Your task to perform on an android device: Open Maps and search for coffee Image 0: 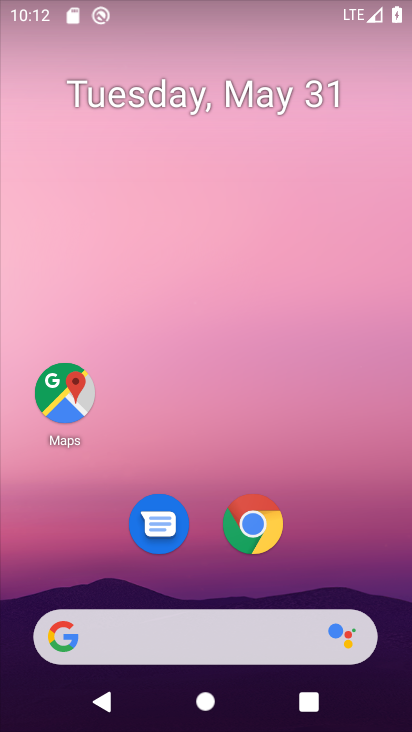
Step 0: click (71, 406)
Your task to perform on an android device: Open Maps and search for coffee Image 1: 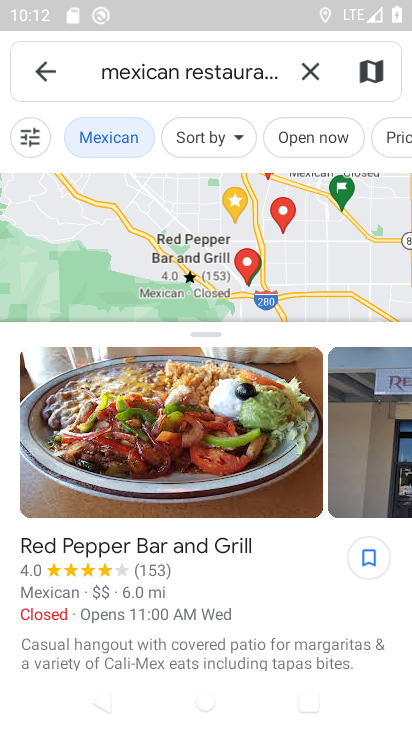
Step 1: click (309, 74)
Your task to perform on an android device: Open Maps and search for coffee Image 2: 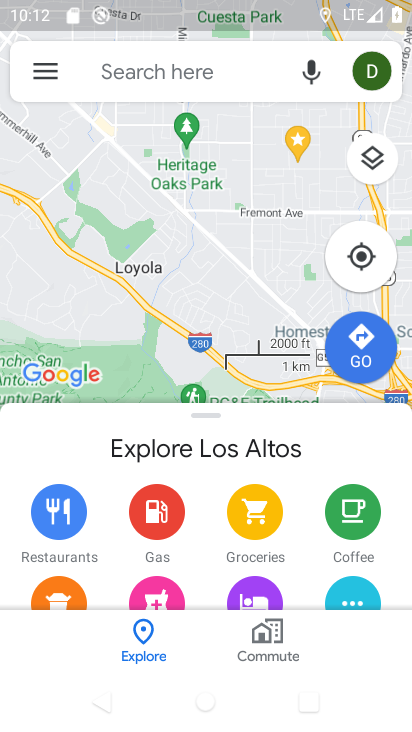
Step 2: click (230, 74)
Your task to perform on an android device: Open Maps and search for coffee Image 3: 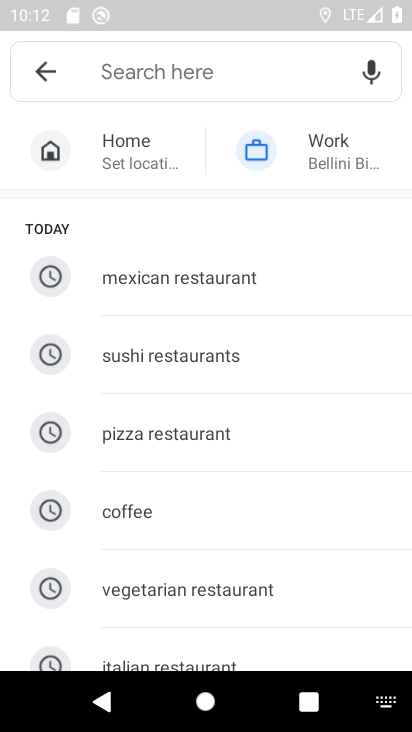
Step 3: click (149, 502)
Your task to perform on an android device: Open Maps and search for coffee Image 4: 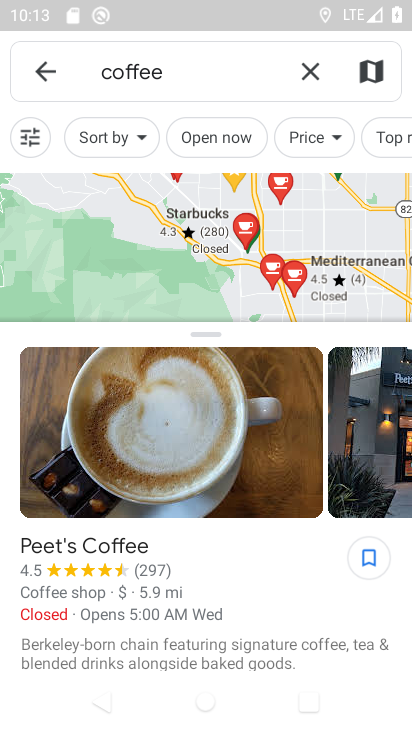
Step 4: task complete